Your task to perform on an android device: See recent photos Image 0: 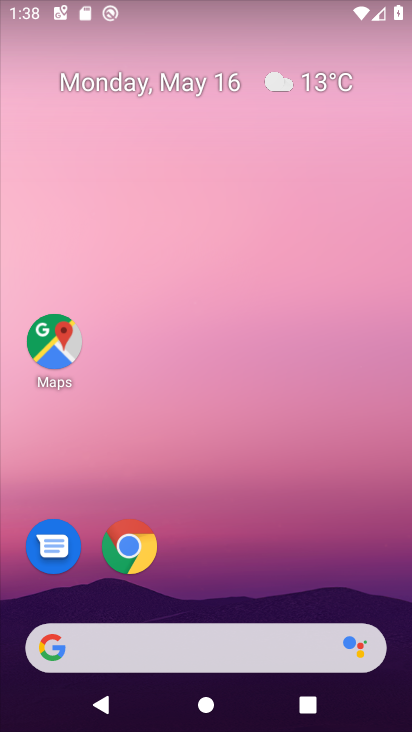
Step 0: drag from (233, 719) to (233, 220)
Your task to perform on an android device: See recent photos Image 1: 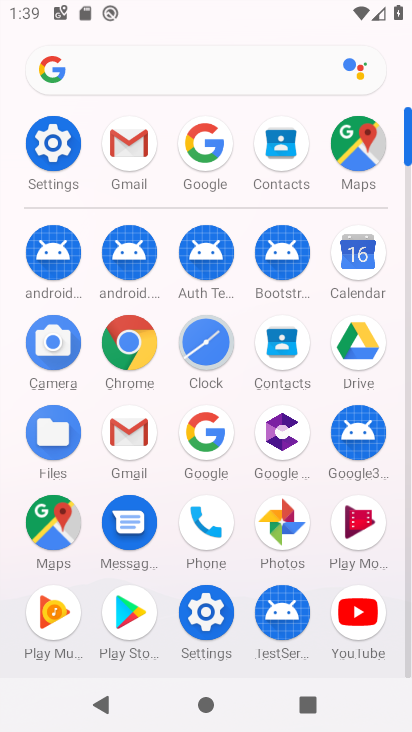
Step 1: click (280, 517)
Your task to perform on an android device: See recent photos Image 2: 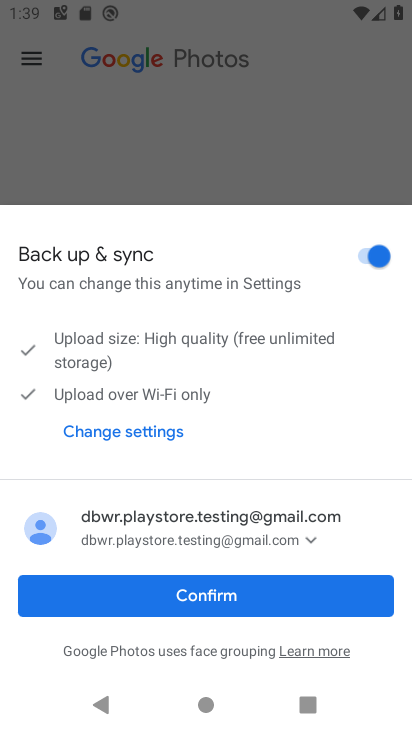
Step 2: click (175, 596)
Your task to perform on an android device: See recent photos Image 3: 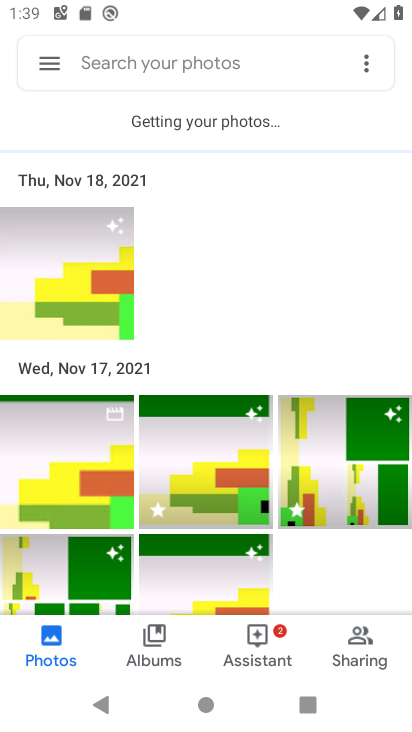
Step 3: click (81, 278)
Your task to perform on an android device: See recent photos Image 4: 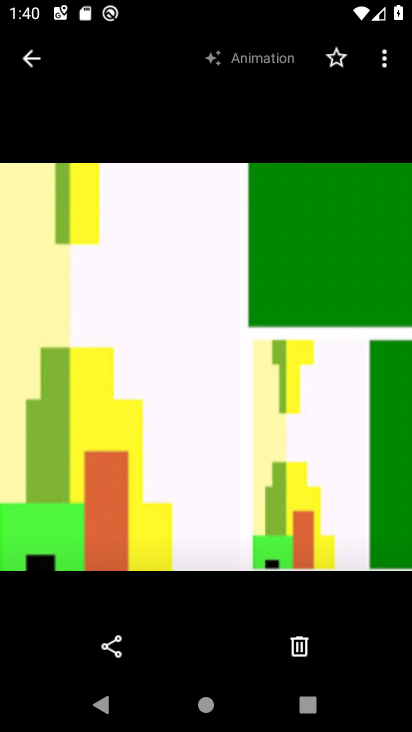
Step 4: task complete